Your task to perform on an android device: set default search engine in the chrome app Image 0: 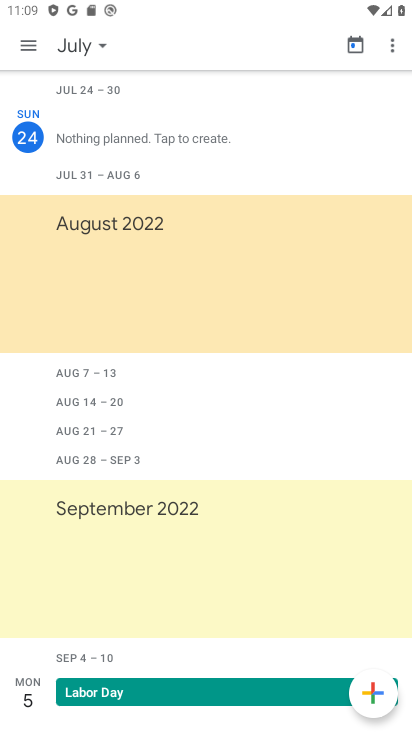
Step 0: press home button
Your task to perform on an android device: set default search engine in the chrome app Image 1: 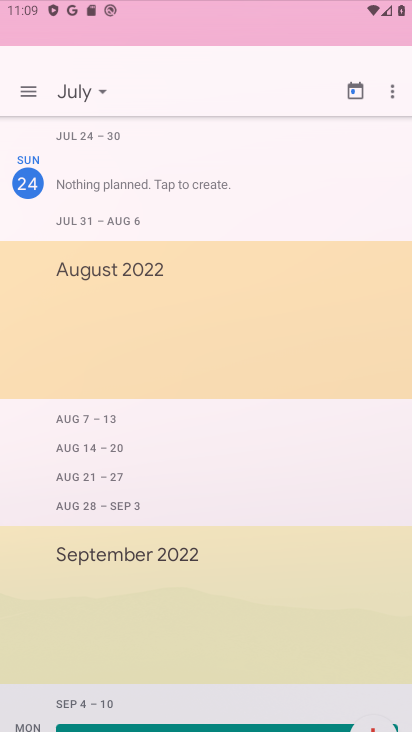
Step 1: drag from (204, 596) to (215, 104)
Your task to perform on an android device: set default search engine in the chrome app Image 2: 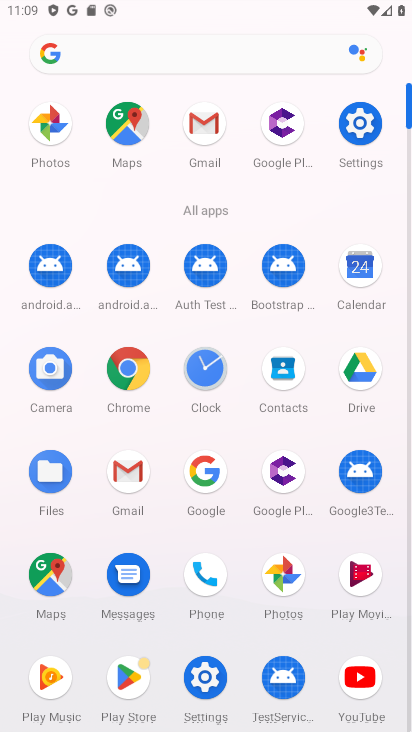
Step 2: click (116, 343)
Your task to perform on an android device: set default search engine in the chrome app Image 3: 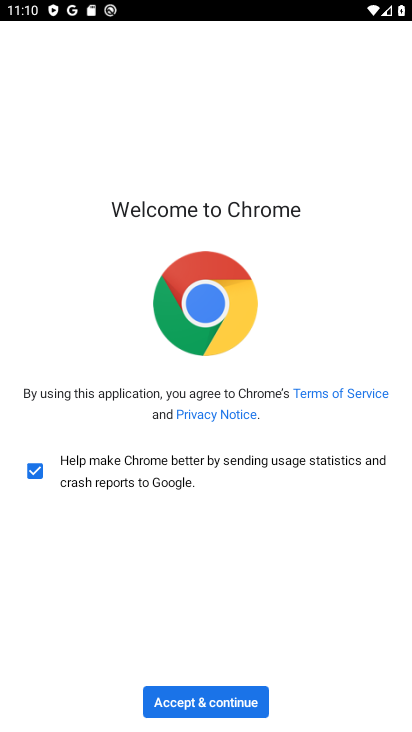
Step 3: click (218, 706)
Your task to perform on an android device: set default search engine in the chrome app Image 4: 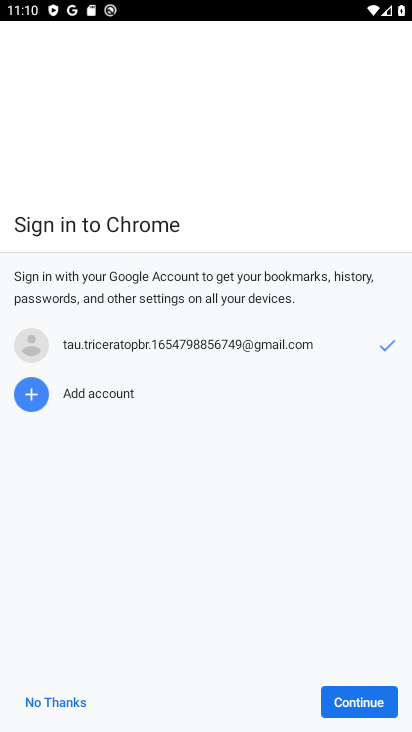
Step 4: click (343, 696)
Your task to perform on an android device: set default search engine in the chrome app Image 5: 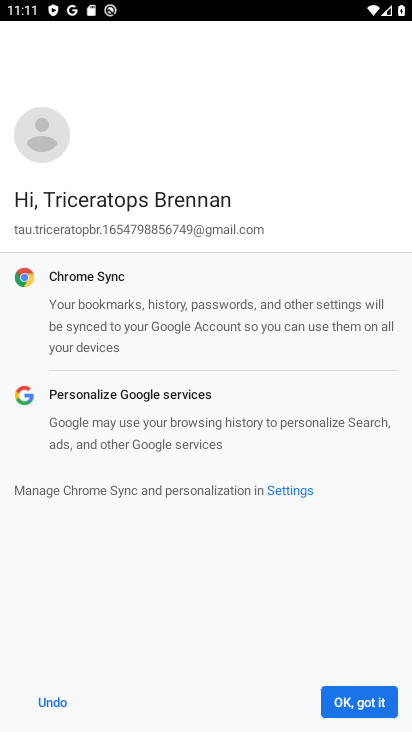
Step 5: click (347, 704)
Your task to perform on an android device: set default search engine in the chrome app Image 6: 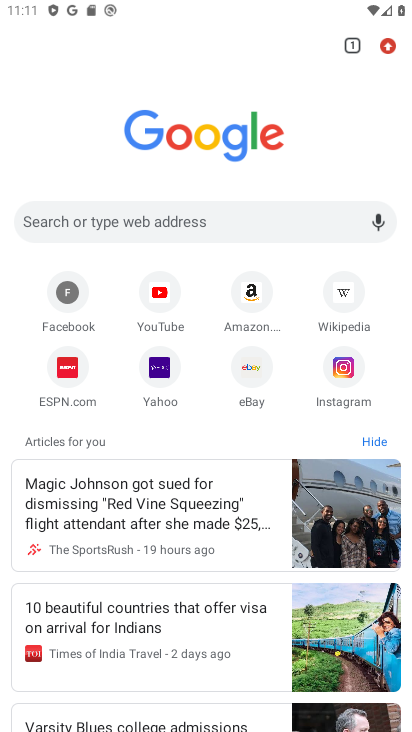
Step 6: drag from (383, 49) to (214, 427)
Your task to perform on an android device: set default search engine in the chrome app Image 7: 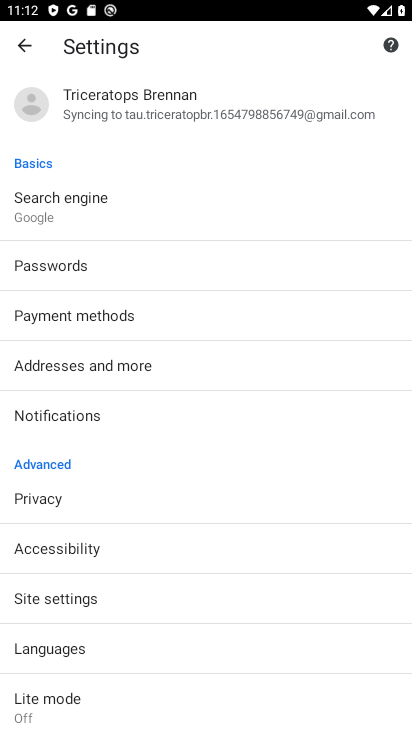
Step 7: click (99, 207)
Your task to perform on an android device: set default search engine in the chrome app Image 8: 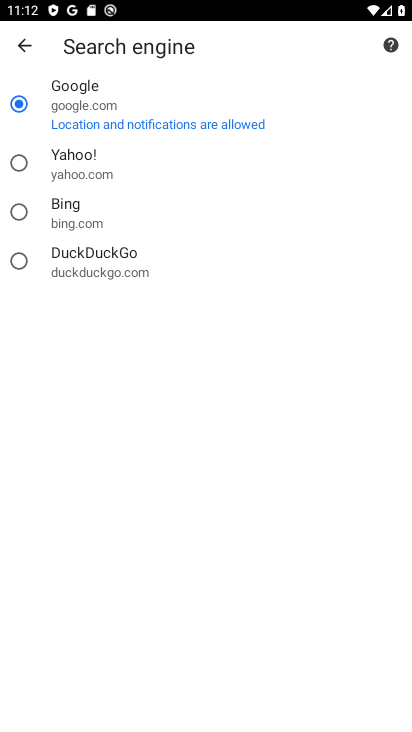
Step 8: click (109, 105)
Your task to perform on an android device: set default search engine in the chrome app Image 9: 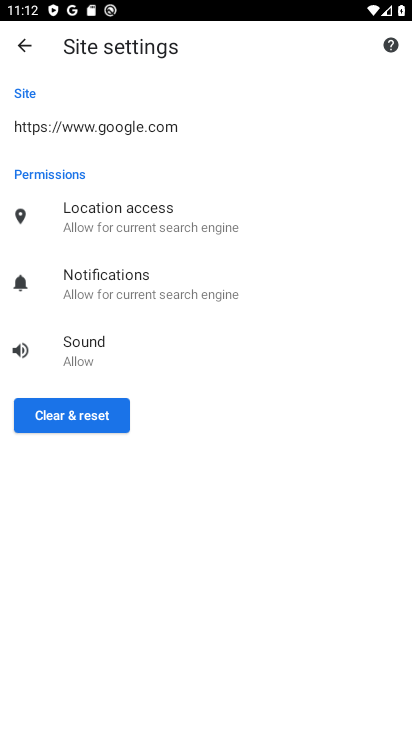
Step 9: task complete